Your task to perform on an android device: check storage Image 0: 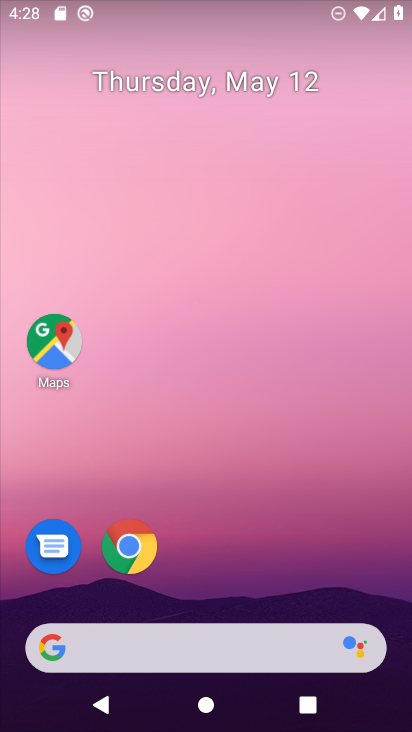
Step 0: drag from (251, 597) to (237, 257)
Your task to perform on an android device: check storage Image 1: 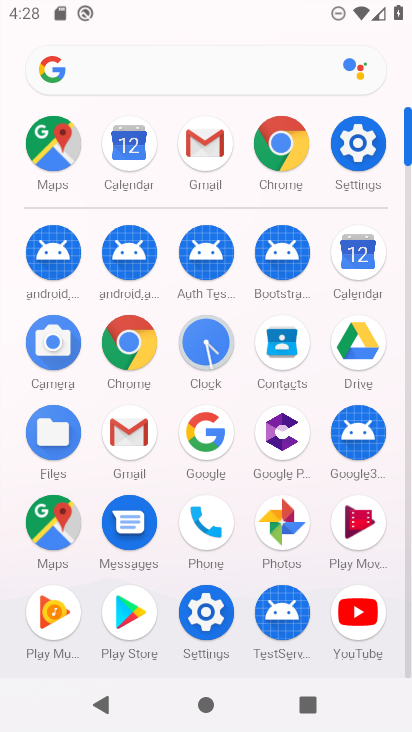
Step 1: click (359, 139)
Your task to perform on an android device: check storage Image 2: 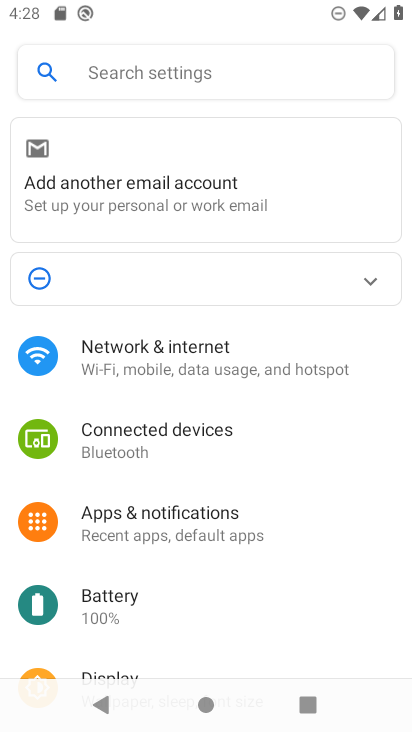
Step 2: drag from (201, 550) to (249, 260)
Your task to perform on an android device: check storage Image 3: 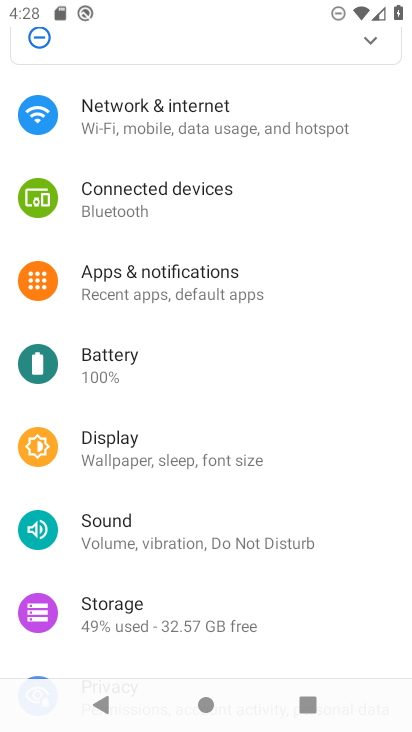
Step 3: click (132, 617)
Your task to perform on an android device: check storage Image 4: 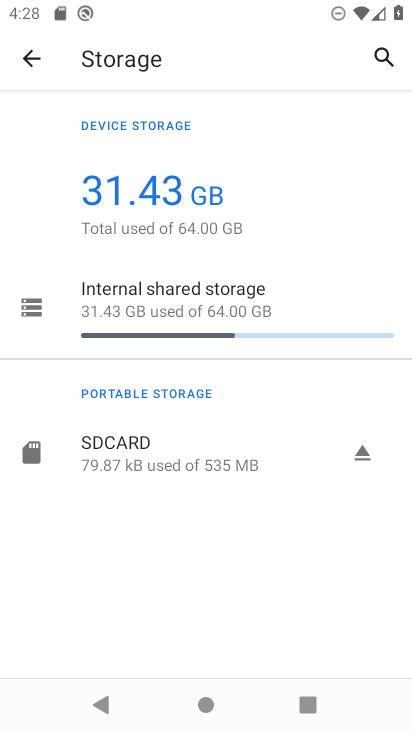
Step 4: task complete